Your task to perform on an android device: Go to display settings Image 0: 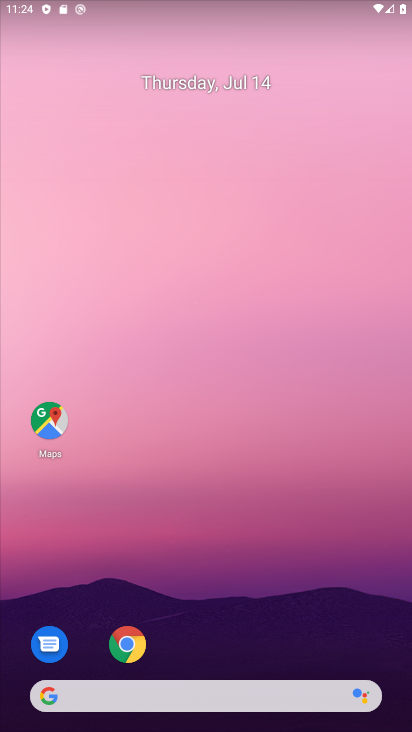
Step 0: drag from (296, 626) to (220, 61)
Your task to perform on an android device: Go to display settings Image 1: 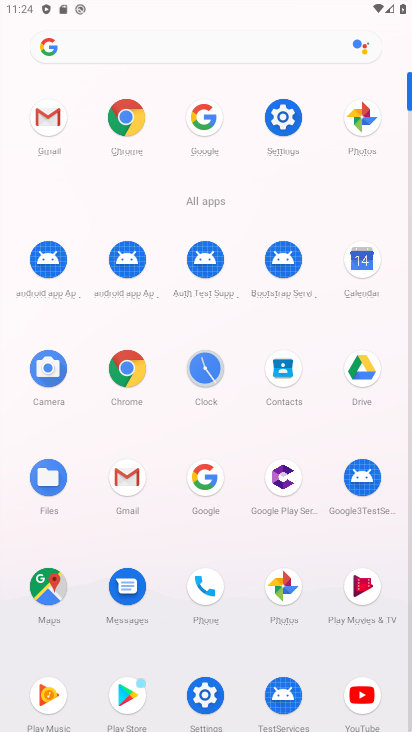
Step 1: click (201, 693)
Your task to perform on an android device: Go to display settings Image 2: 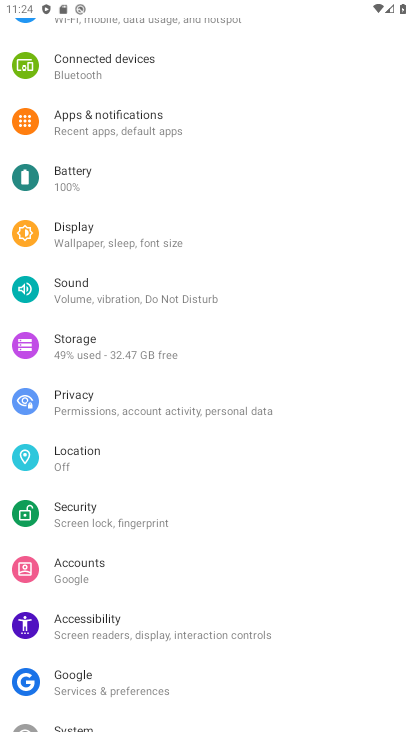
Step 2: click (106, 230)
Your task to perform on an android device: Go to display settings Image 3: 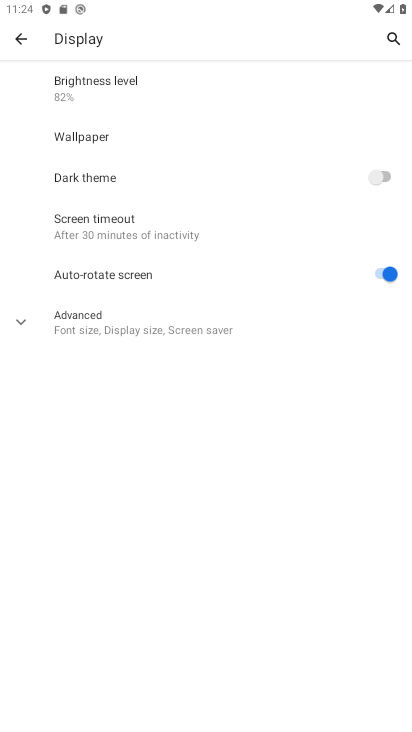
Step 3: task complete